Your task to perform on an android device: check out phone information Image 0: 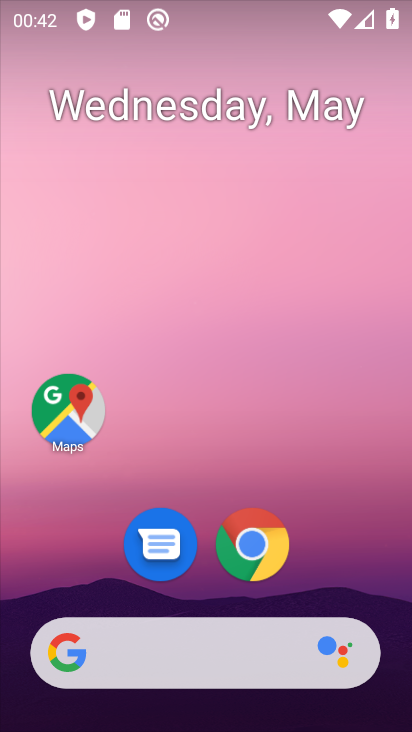
Step 0: drag from (331, 589) to (382, 109)
Your task to perform on an android device: check out phone information Image 1: 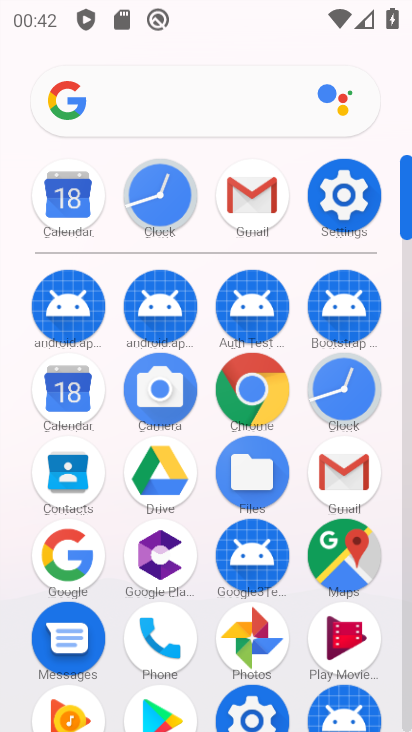
Step 1: click (169, 636)
Your task to perform on an android device: check out phone information Image 2: 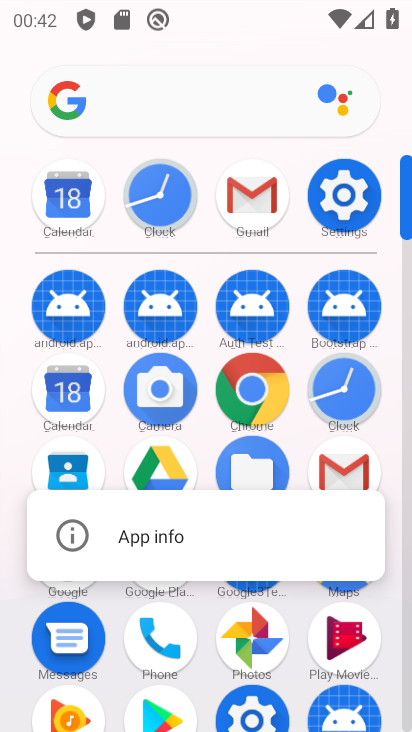
Step 2: click (172, 550)
Your task to perform on an android device: check out phone information Image 3: 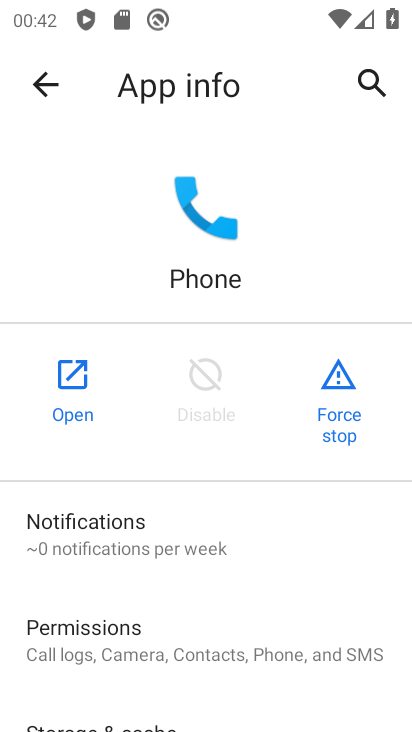
Step 3: task complete